Your task to perform on an android device: clear history in the chrome app Image 0: 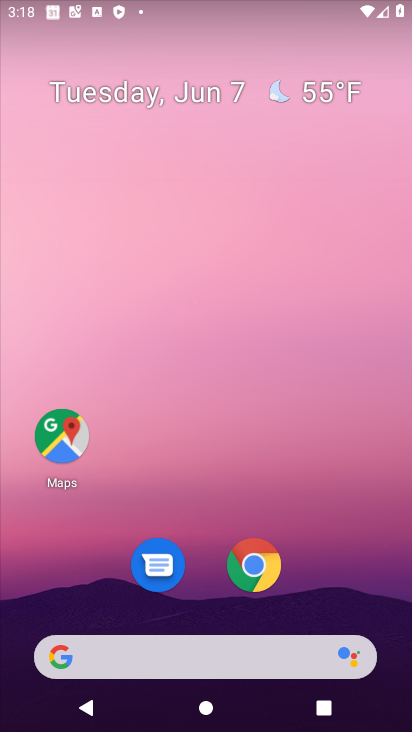
Step 0: press home button
Your task to perform on an android device: clear history in the chrome app Image 1: 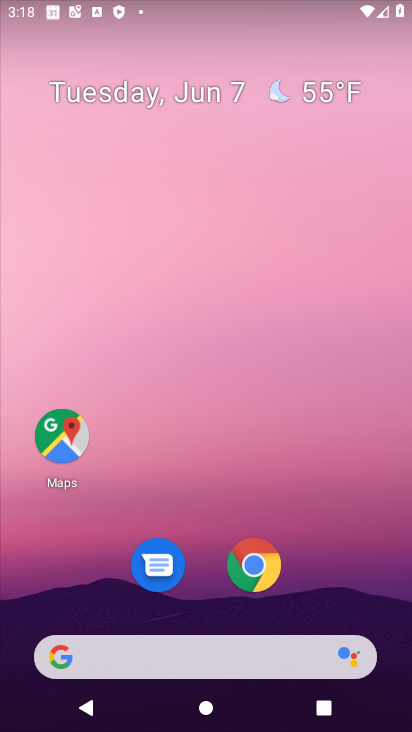
Step 1: drag from (281, 646) to (273, 34)
Your task to perform on an android device: clear history in the chrome app Image 2: 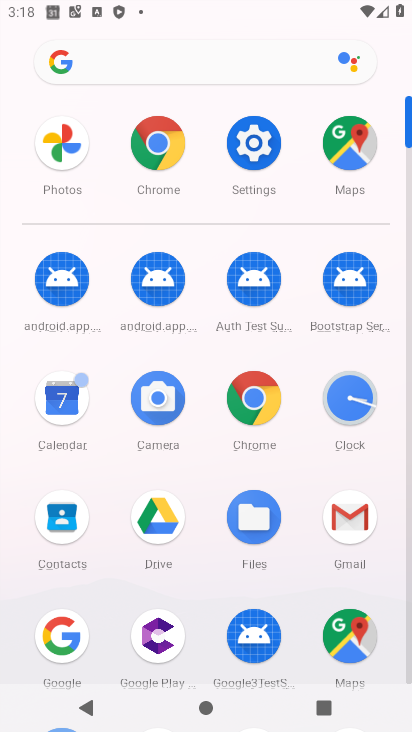
Step 2: click (249, 394)
Your task to perform on an android device: clear history in the chrome app Image 3: 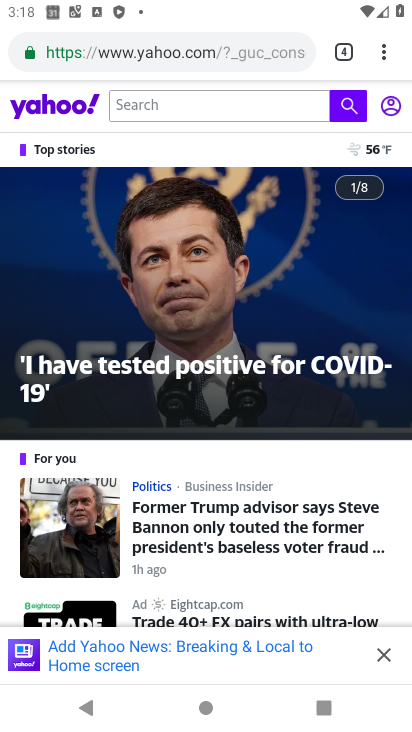
Step 3: click (386, 57)
Your task to perform on an android device: clear history in the chrome app Image 4: 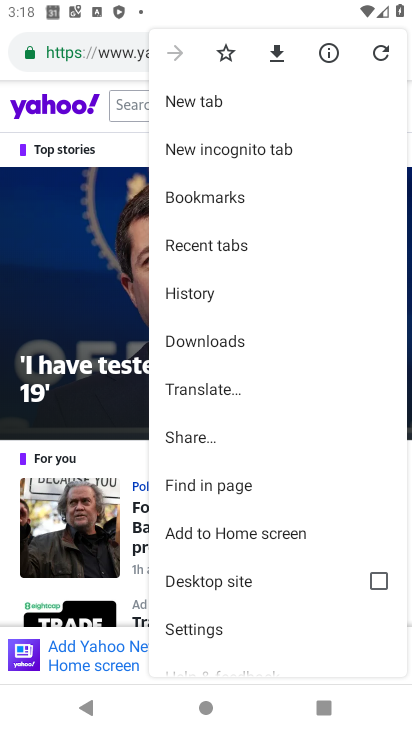
Step 4: click (206, 295)
Your task to perform on an android device: clear history in the chrome app Image 5: 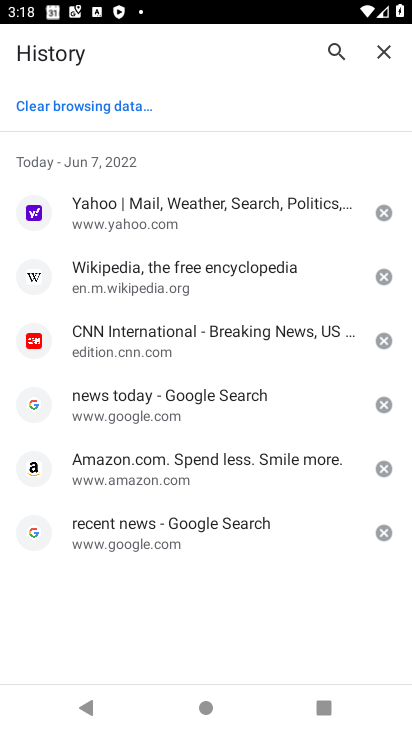
Step 5: click (104, 107)
Your task to perform on an android device: clear history in the chrome app Image 6: 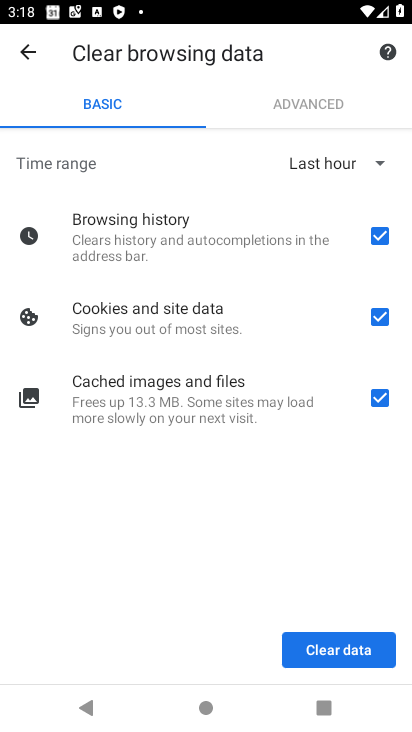
Step 6: click (338, 659)
Your task to perform on an android device: clear history in the chrome app Image 7: 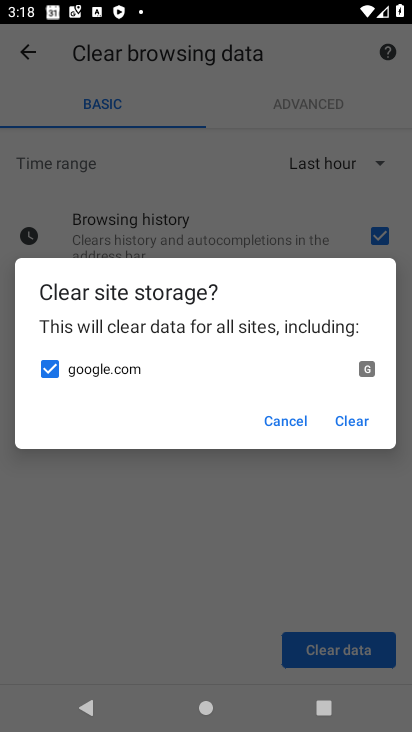
Step 7: click (349, 426)
Your task to perform on an android device: clear history in the chrome app Image 8: 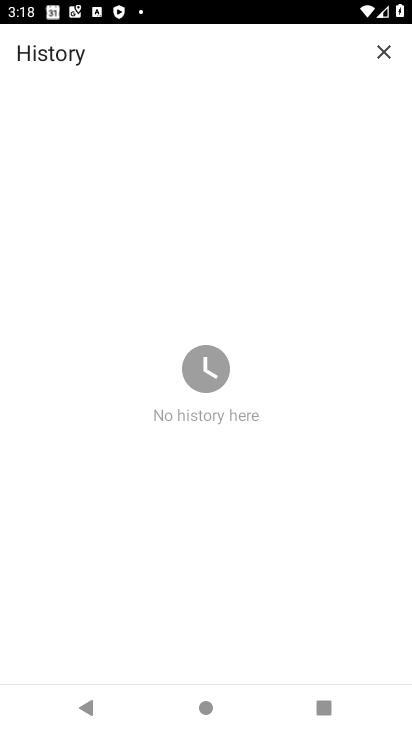
Step 8: task complete